Your task to perform on an android device: check google app version Image 0: 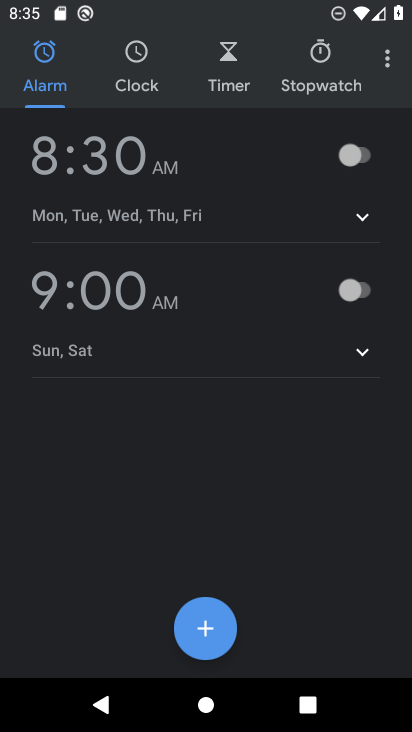
Step 0: press home button
Your task to perform on an android device: check google app version Image 1: 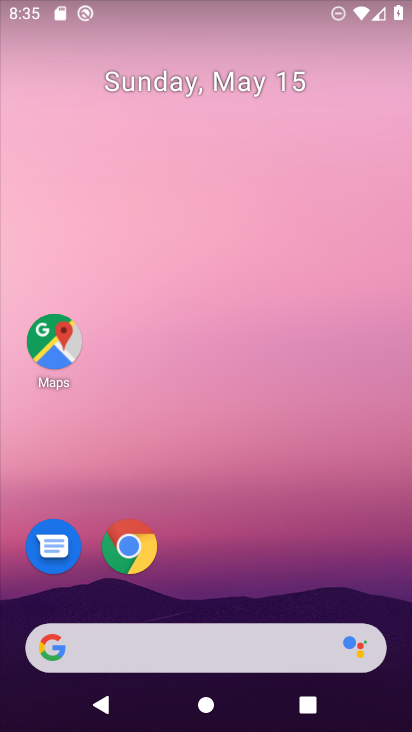
Step 1: click (132, 649)
Your task to perform on an android device: check google app version Image 2: 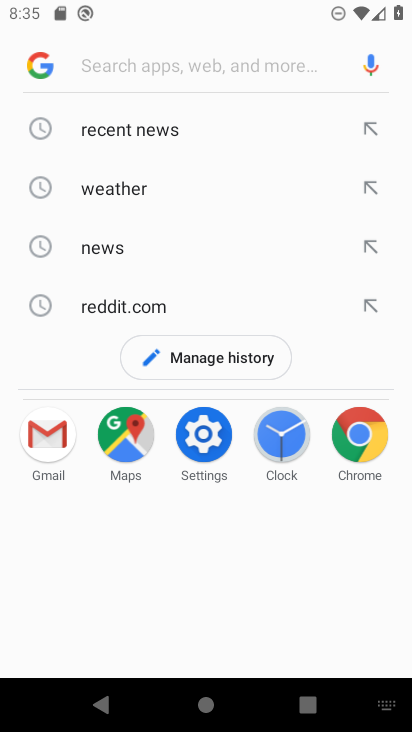
Step 2: click (31, 50)
Your task to perform on an android device: check google app version Image 3: 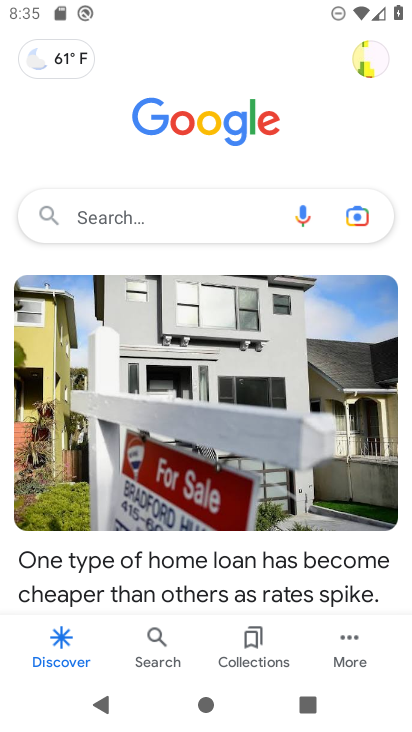
Step 3: click (350, 635)
Your task to perform on an android device: check google app version Image 4: 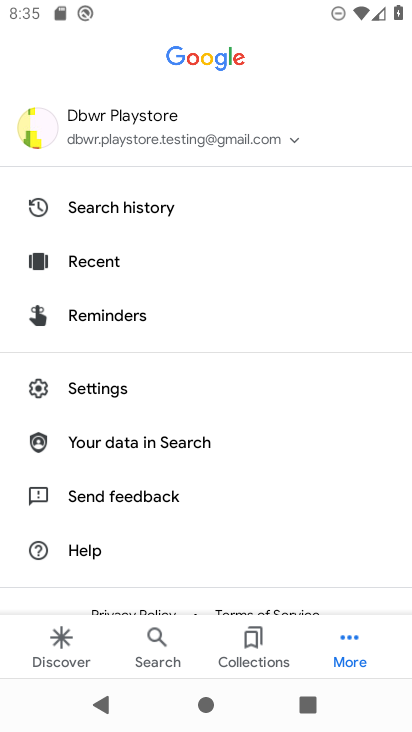
Step 4: click (122, 371)
Your task to perform on an android device: check google app version Image 5: 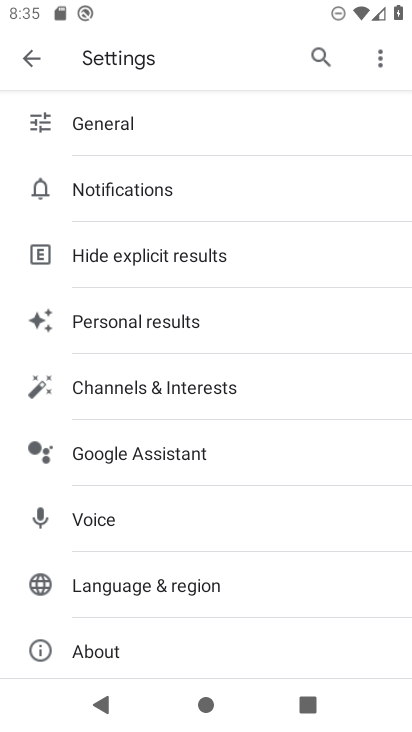
Step 5: click (109, 641)
Your task to perform on an android device: check google app version Image 6: 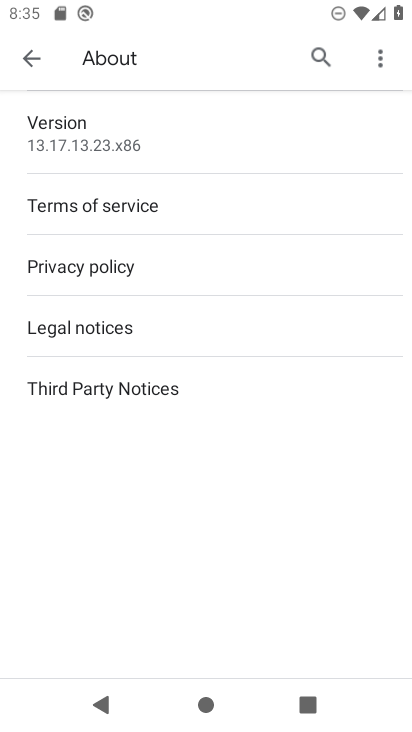
Step 6: task complete